Your task to perform on an android device: Add "usb-c to usb-a" to the cart on ebay Image 0: 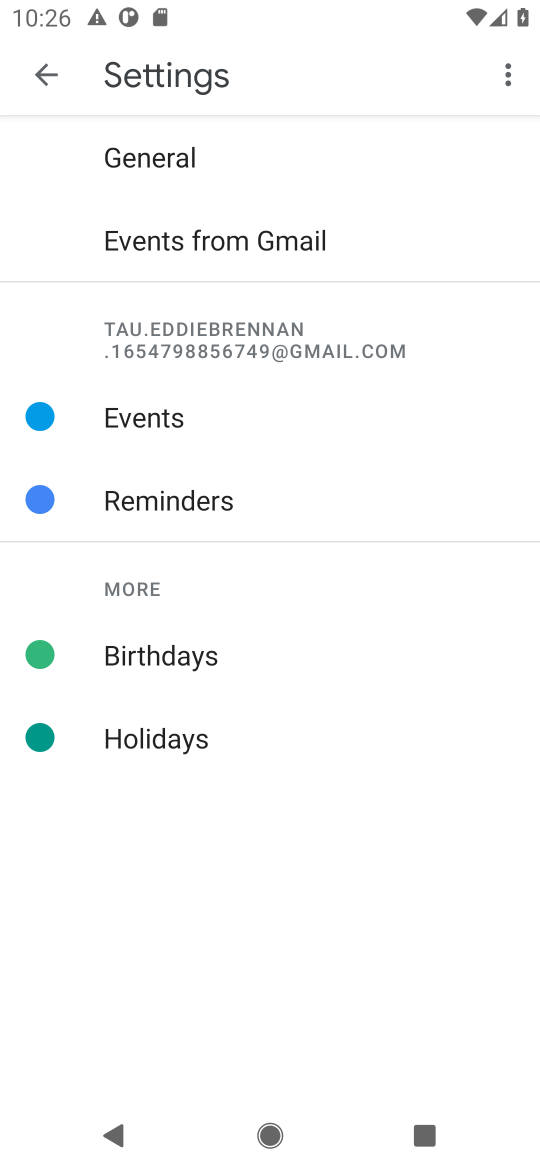
Step 0: press home button
Your task to perform on an android device: Add "usb-c to usb-a" to the cart on ebay Image 1: 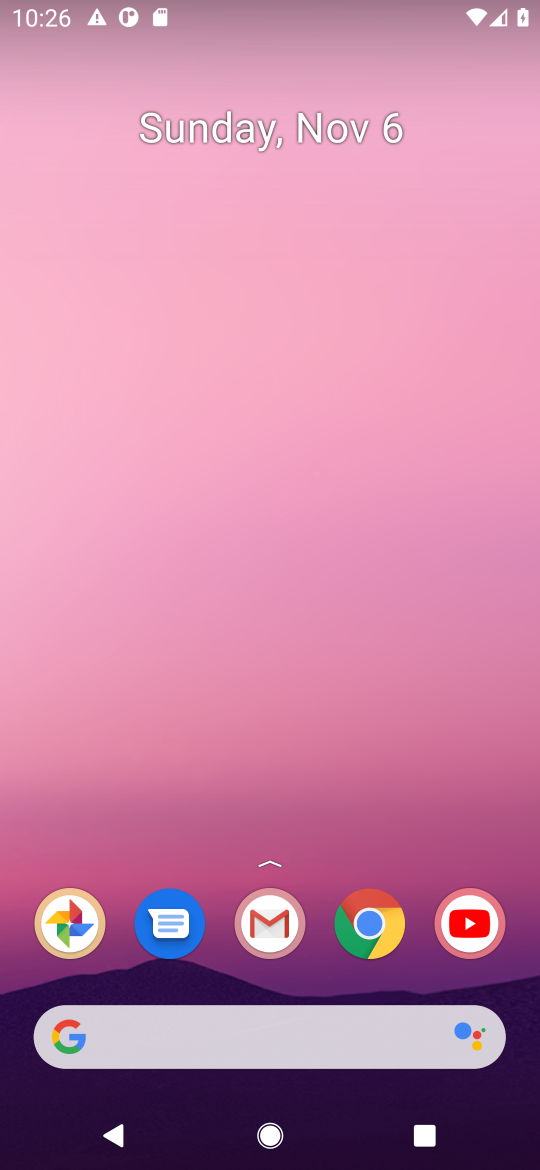
Step 1: click (363, 930)
Your task to perform on an android device: Add "usb-c to usb-a" to the cart on ebay Image 2: 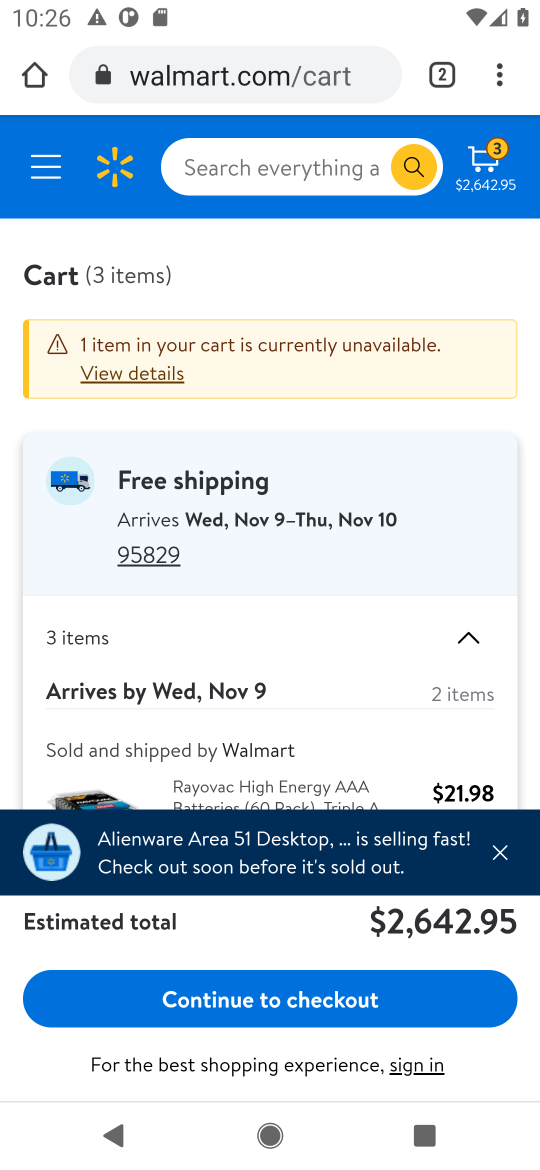
Step 2: click (193, 72)
Your task to perform on an android device: Add "usb-c to usb-a" to the cart on ebay Image 3: 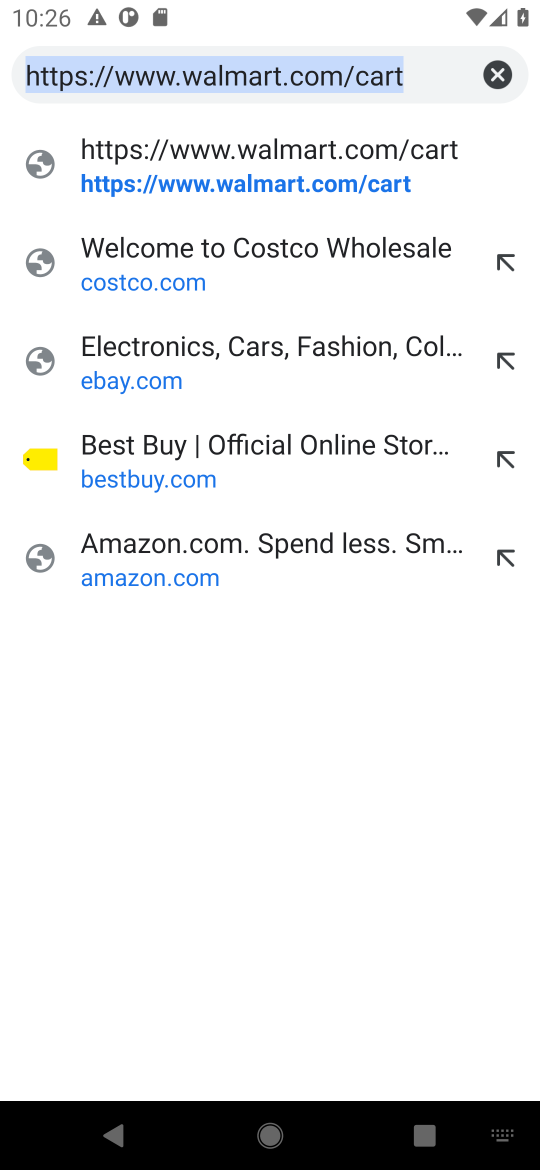
Step 3: click (142, 387)
Your task to perform on an android device: Add "usb-c to usb-a" to the cart on ebay Image 4: 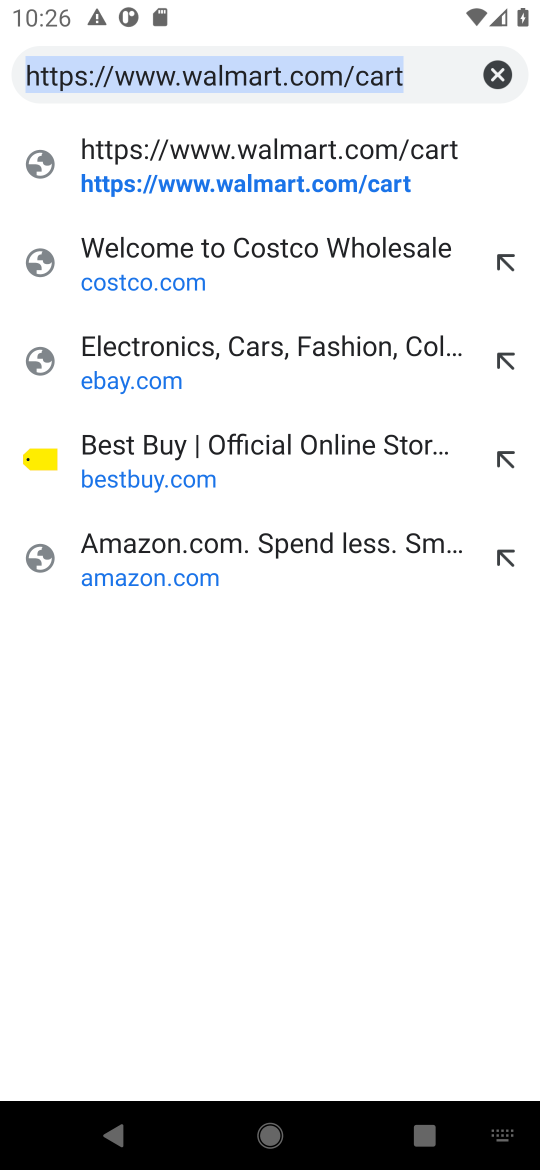
Step 4: click (139, 378)
Your task to perform on an android device: Add "usb-c to usb-a" to the cart on ebay Image 5: 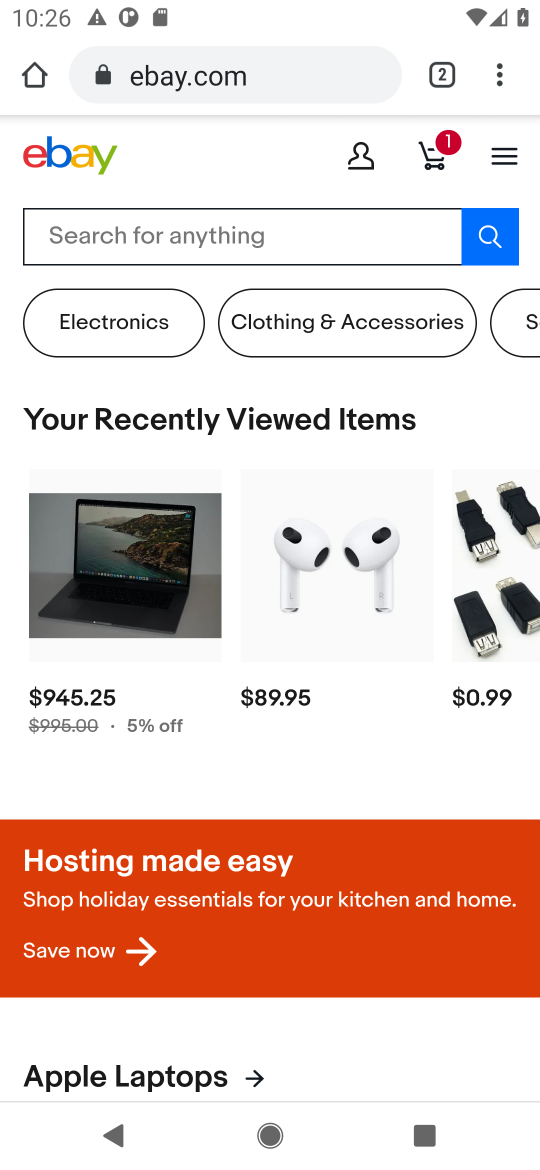
Step 5: click (109, 248)
Your task to perform on an android device: Add "usb-c to usb-a" to the cart on ebay Image 6: 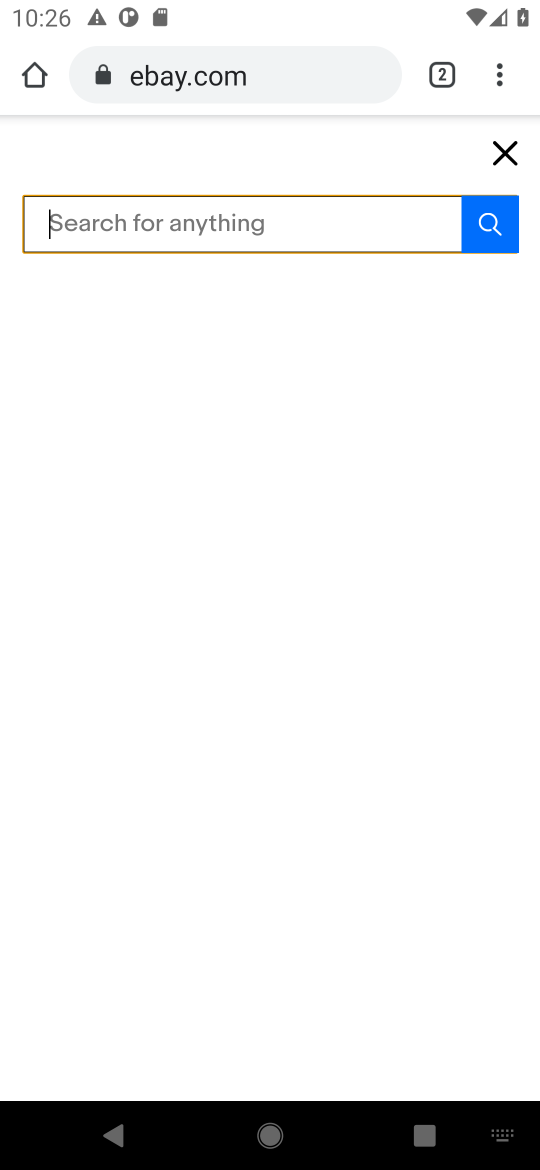
Step 6: type "usb-c to usb-a"
Your task to perform on an android device: Add "usb-c to usb-a" to the cart on ebay Image 7: 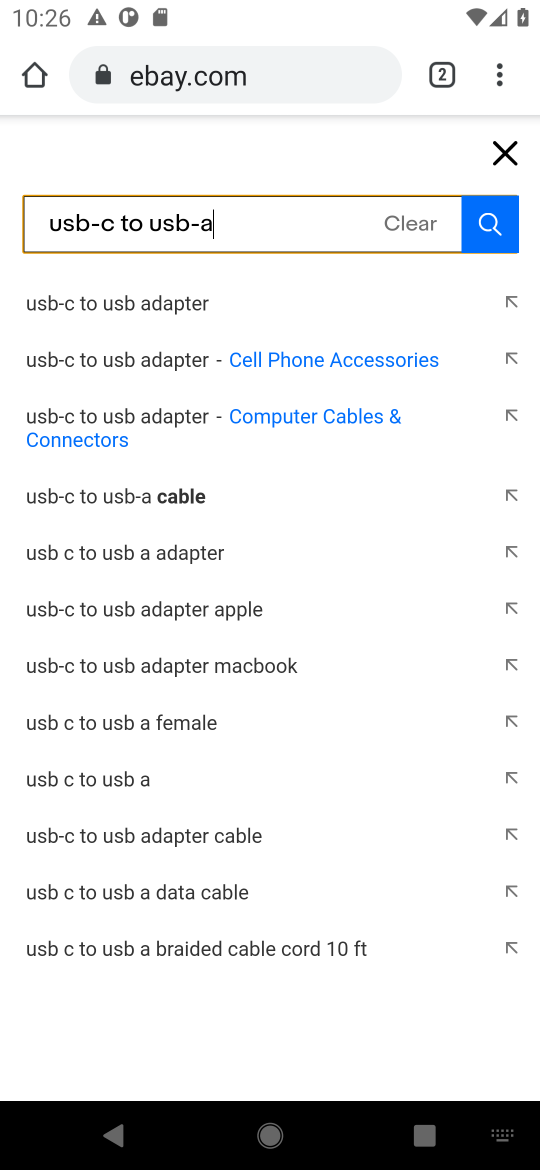
Step 7: click (494, 229)
Your task to perform on an android device: Add "usb-c to usb-a" to the cart on ebay Image 8: 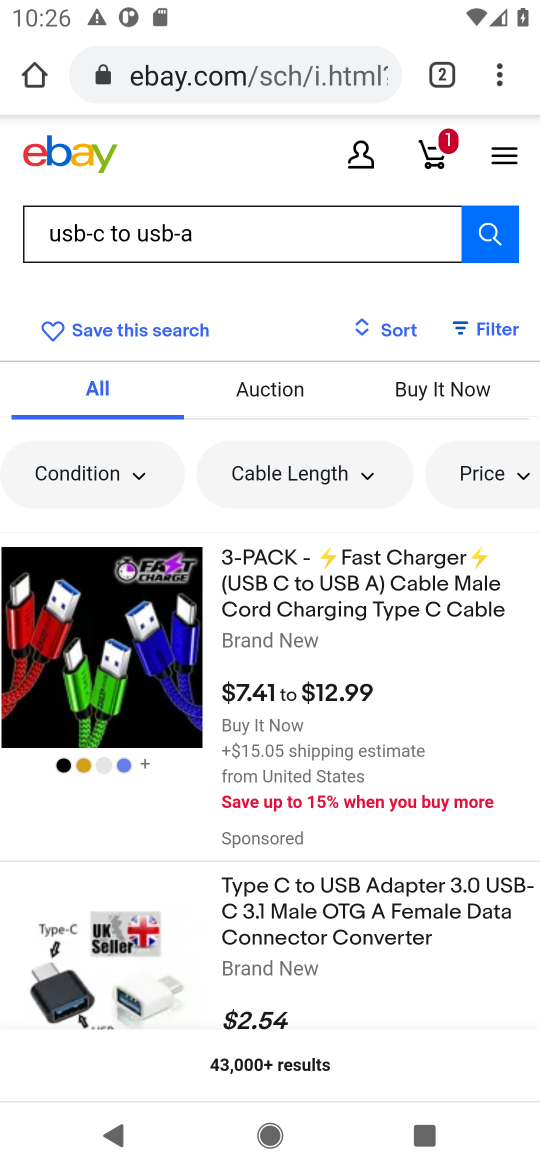
Step 8: click (190, 672)
Your task to perform on an android device: Add "usb-c to usb-a" to the cart on ebay Image 9: 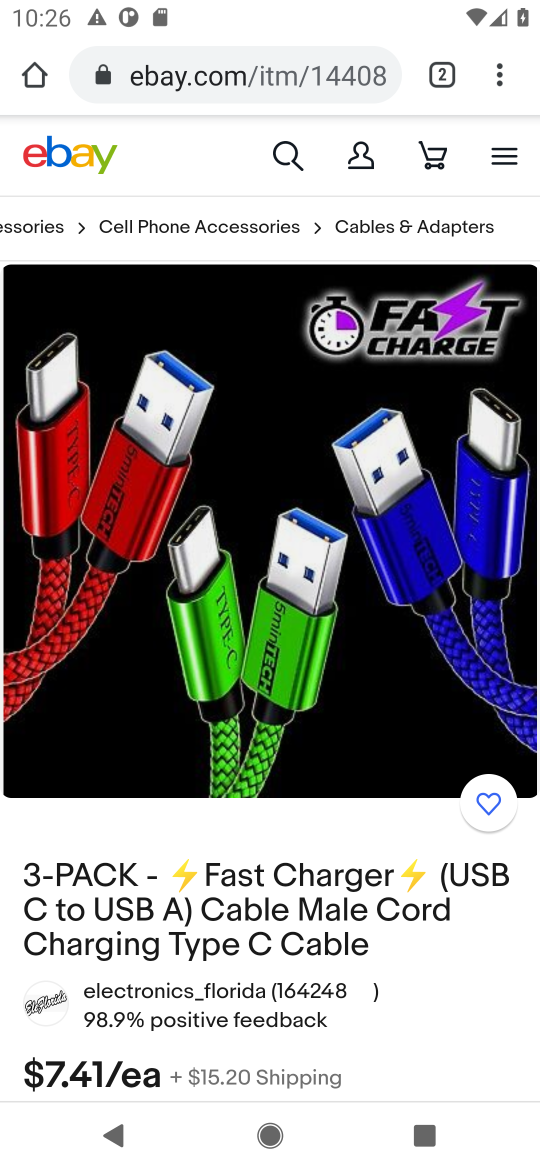
Step 9: drag from (233, 839) to (222, 324)
Your task to perform on an android device: Add "usb-c to usb-a" to the cart on ebay Image 10: 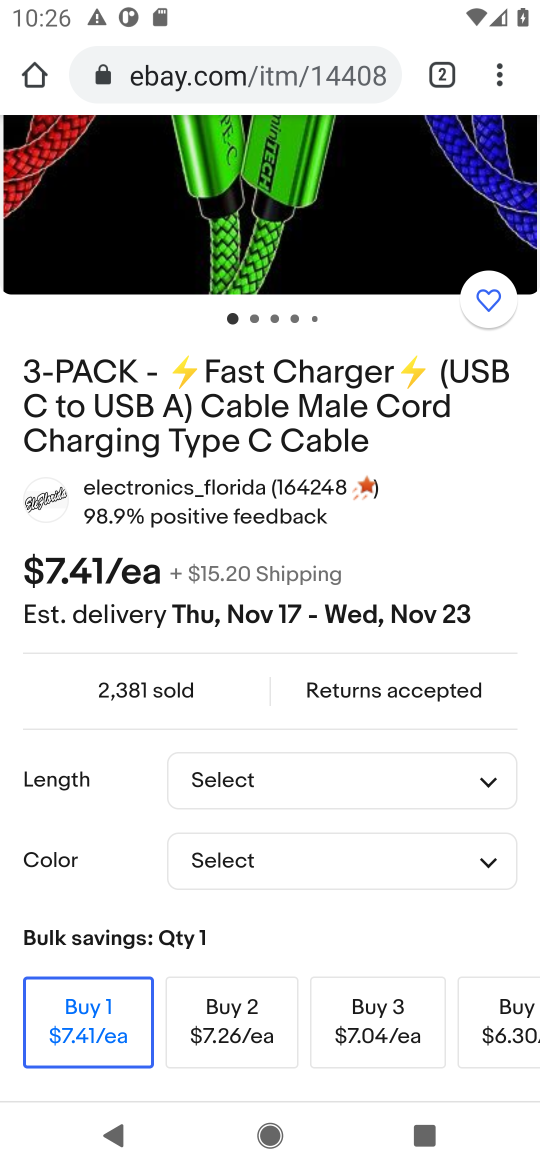
Step 10: drag from (211, 858) to (217, 573)
Your task to perform on an android device: Add "usb-c to usb-a" to the cart on ebay Image 11: 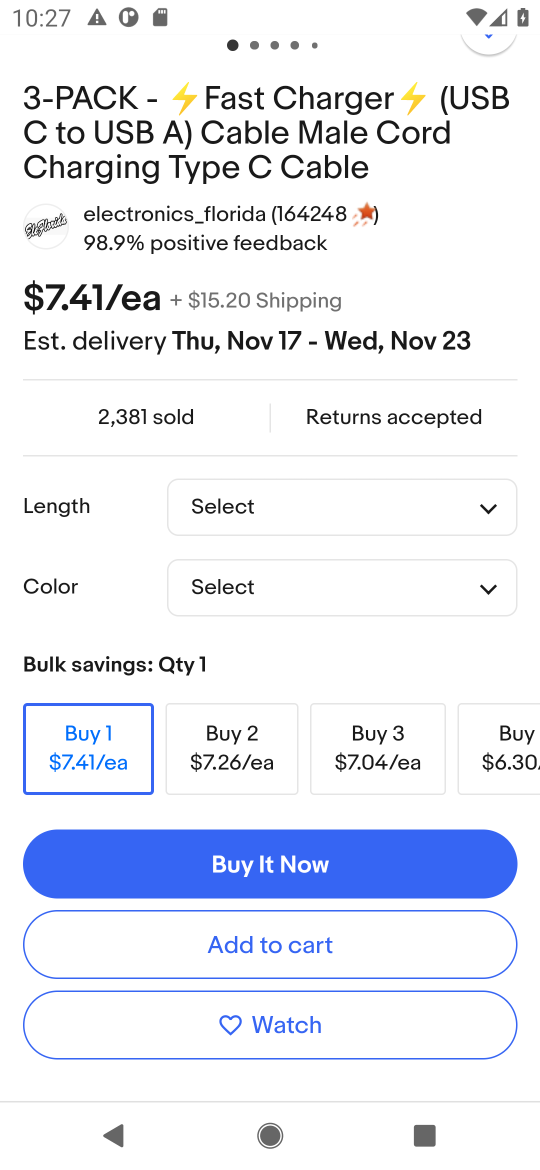
Step 11: click (498, 509)
Your task to perform on an android device: Add "usb-c to usb-a" to the cart on ebay Image 12: 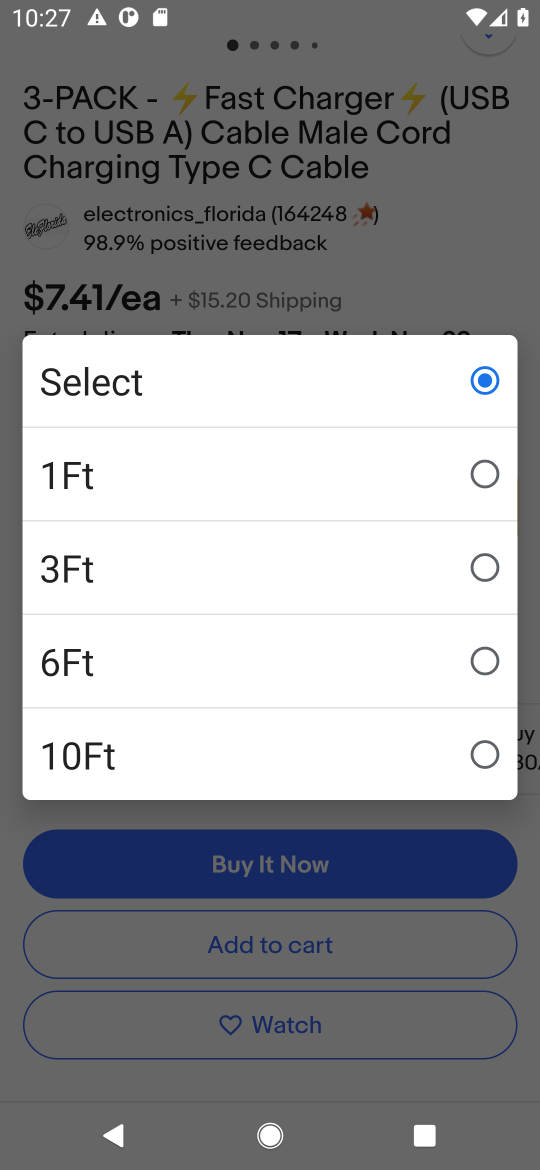
Step 12: click (30, 480)
Your task to perform on an android device: Add "usb-c to usb-a" to the cart on ebay Image 13: 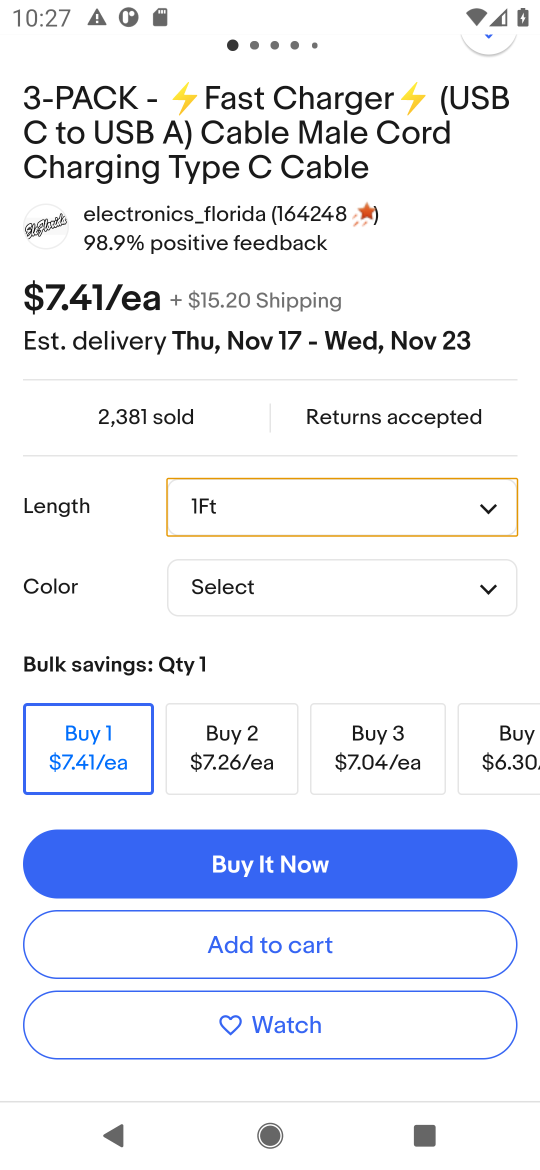
Step 13: click (479, 590)
Your task to perform on an android device: Add "usb-c to usb-a" to the cart on ebay Image 14: 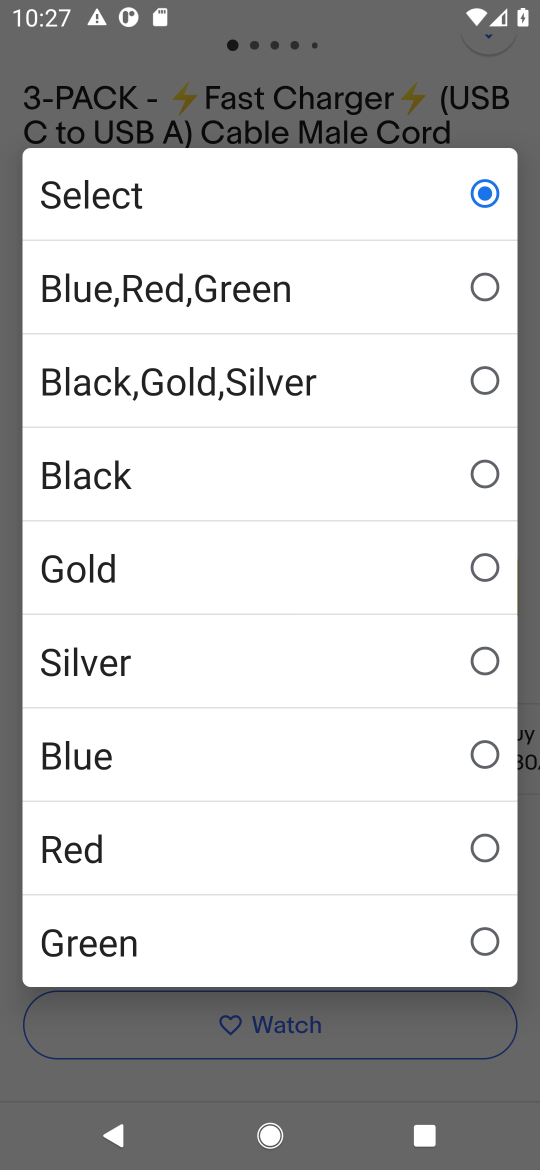
Step 14: click (107, 574)
Your task to perform on an android device: Add "usb-c to usb-a" to the cart on ebay Image 15: 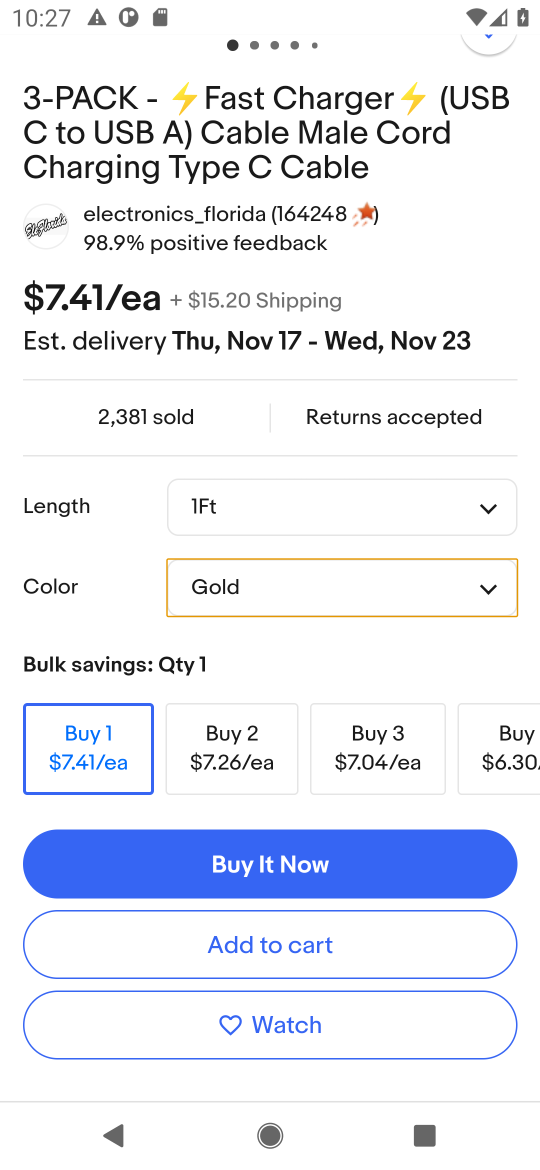
Step 15: click (268, 949)
Your task to perform on an android device: Add "usb-c to usb-a" to the cart on ebay Image 16: 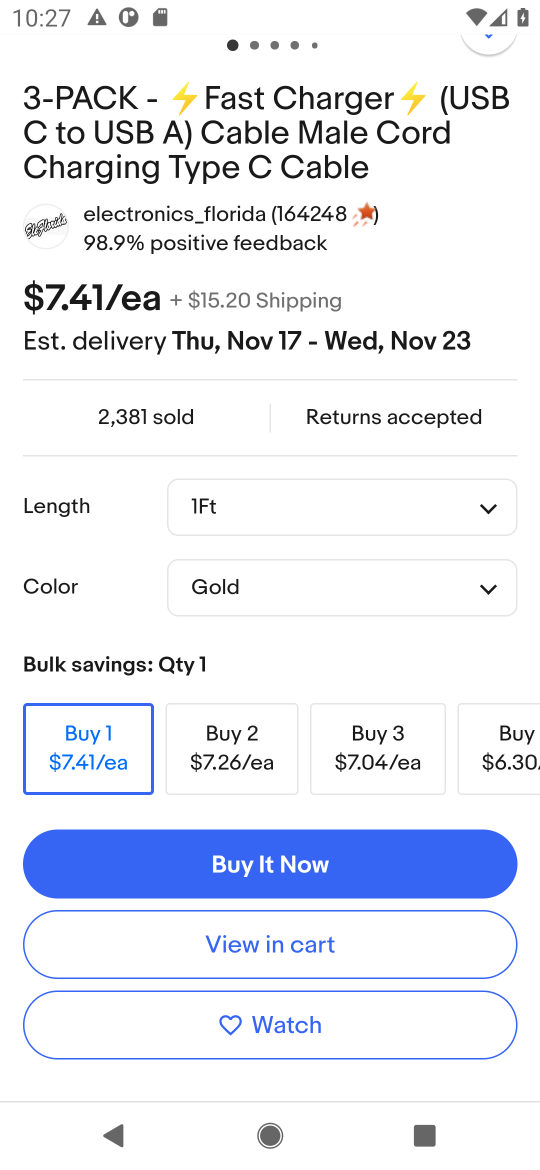
Step 16: task complete